Your task to perform on an android device: toggle notification dots Image 0: 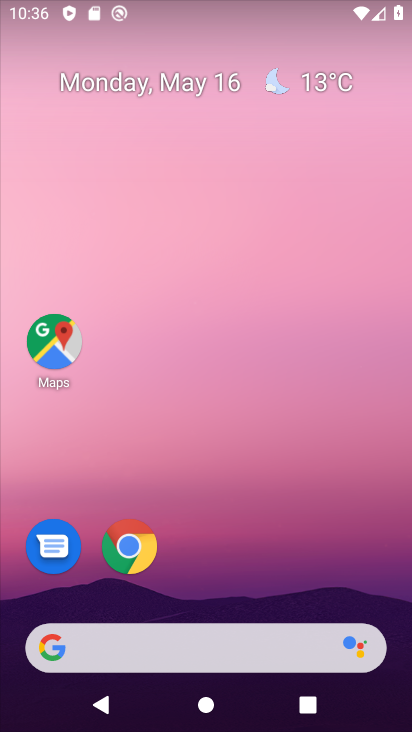
Step 0: drag from (299, 531) to (282, 3)
Your task to perform on an android device: toggle notification dots Image 1: 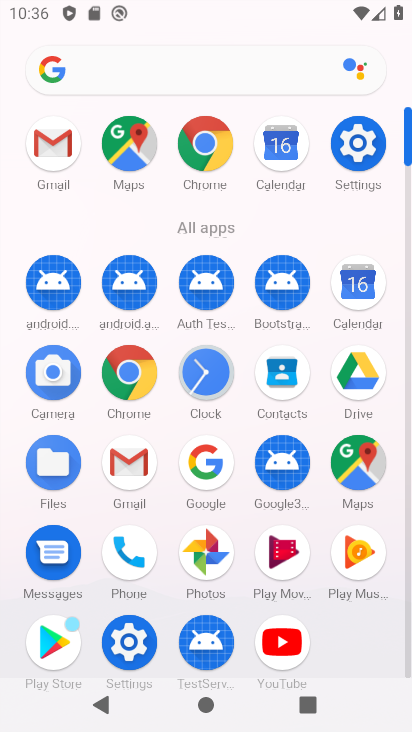
Step 1: click (374, 154)
Your task to perform on an android device: toggle notification dots Image 2: 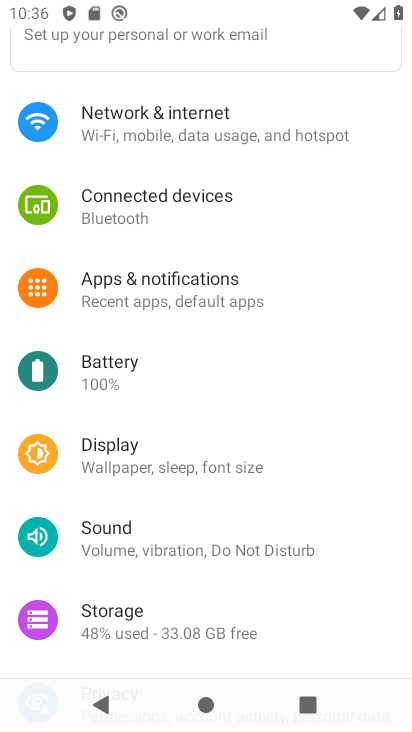
Step 2: click (200, 296)
Your task to perform on an android device: toggle notification dots Image 3: 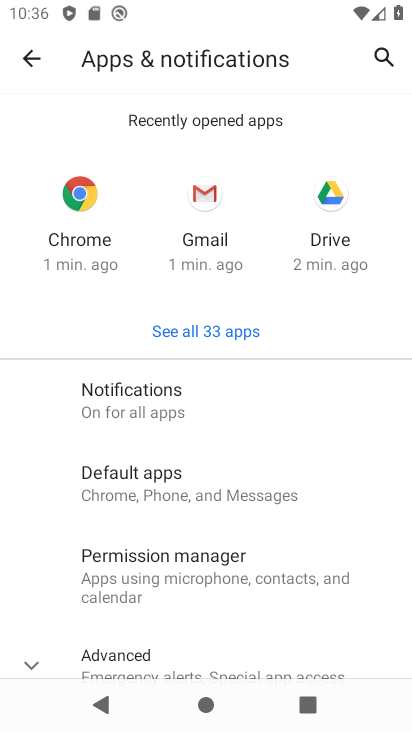
Step 3: click (160, 409)
Your task to perform on an android device: toggle notification dots Image 4: 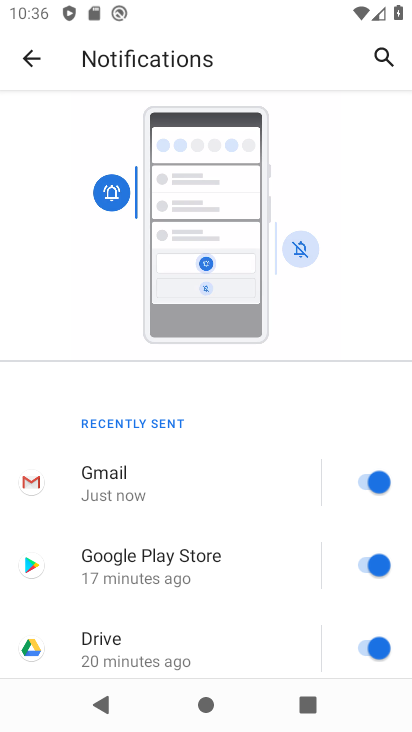
Step 4: drag from (181, 555) to (250, 277)
Your task to perform on an android device: toggle notification dots Image 5: 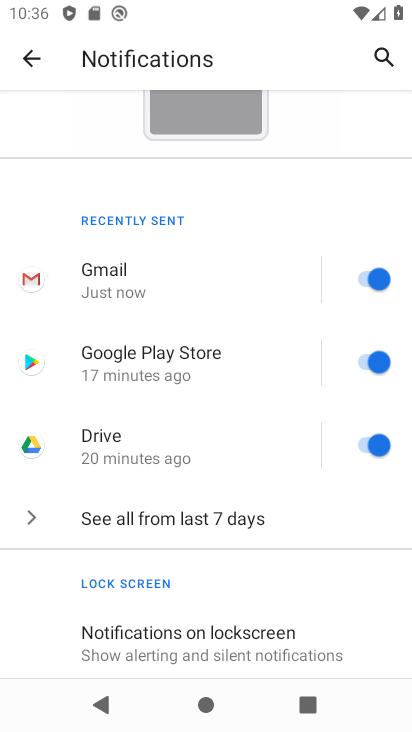
Step 5: drag from (236, 537) to (298, 257)
Your task to perform on an android device: toggle notification dots Image 6: 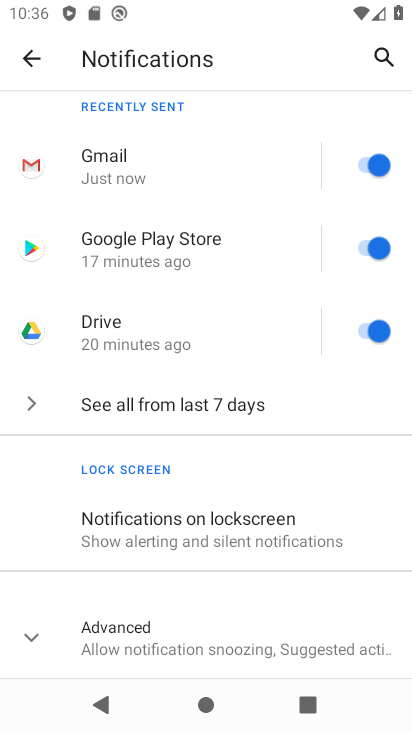
Step 6: click (173, 520)
Your task to perform on an android device: toggle notification dots Image 7: 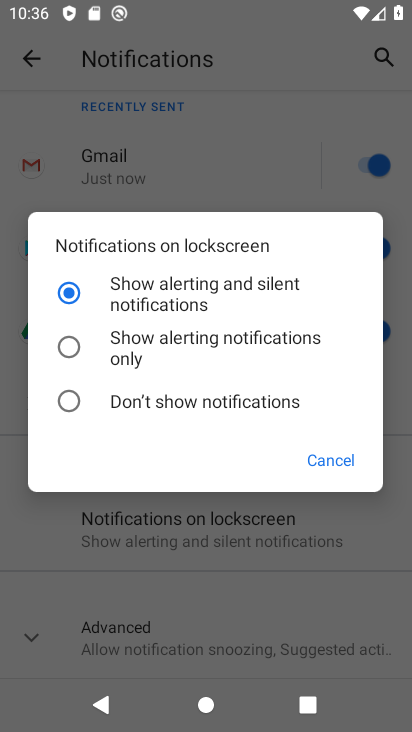
Step 7: click (74, 345)
Your task to perform on an android device: toggle notification dots Image 8: 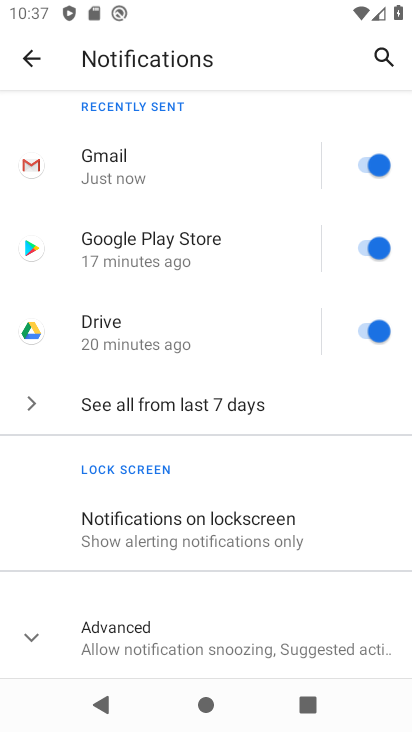
Step 8: click (322, 641)
Your task to perform on an android device: toggle notification dots Image 9: 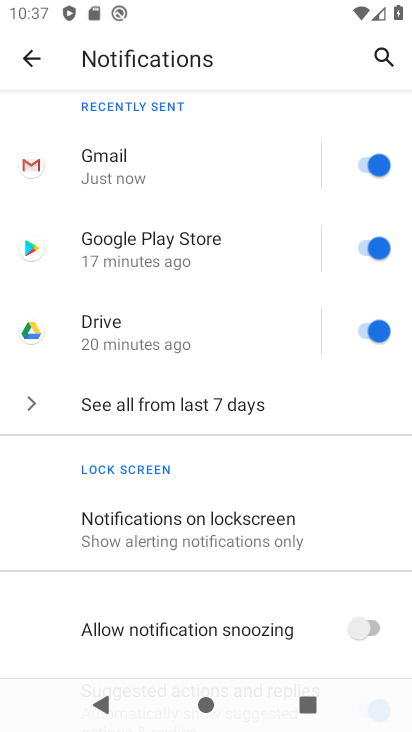
Step 9: drag from (277, 594) to (246, 154)
Your task to perform on an android device: toggle notification dots Image 10: 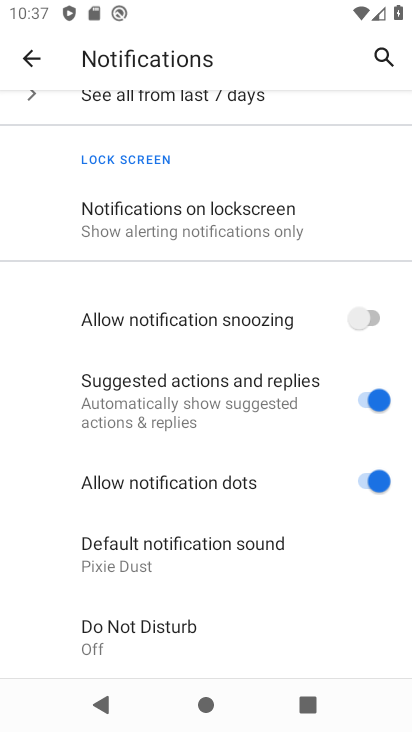
Step 10: click (391, 487)
Your task to perform on an android device: toggle notification dots Image 11: 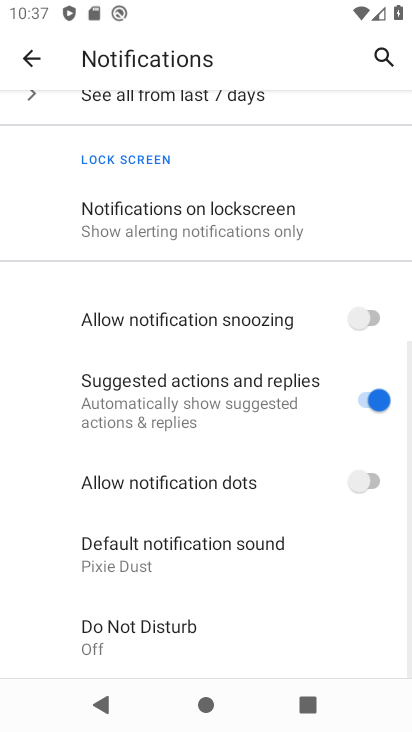
Step 11: task complete